Your task to perform on an android device: Open Youtube and go to the subscriptions tab Image 0: 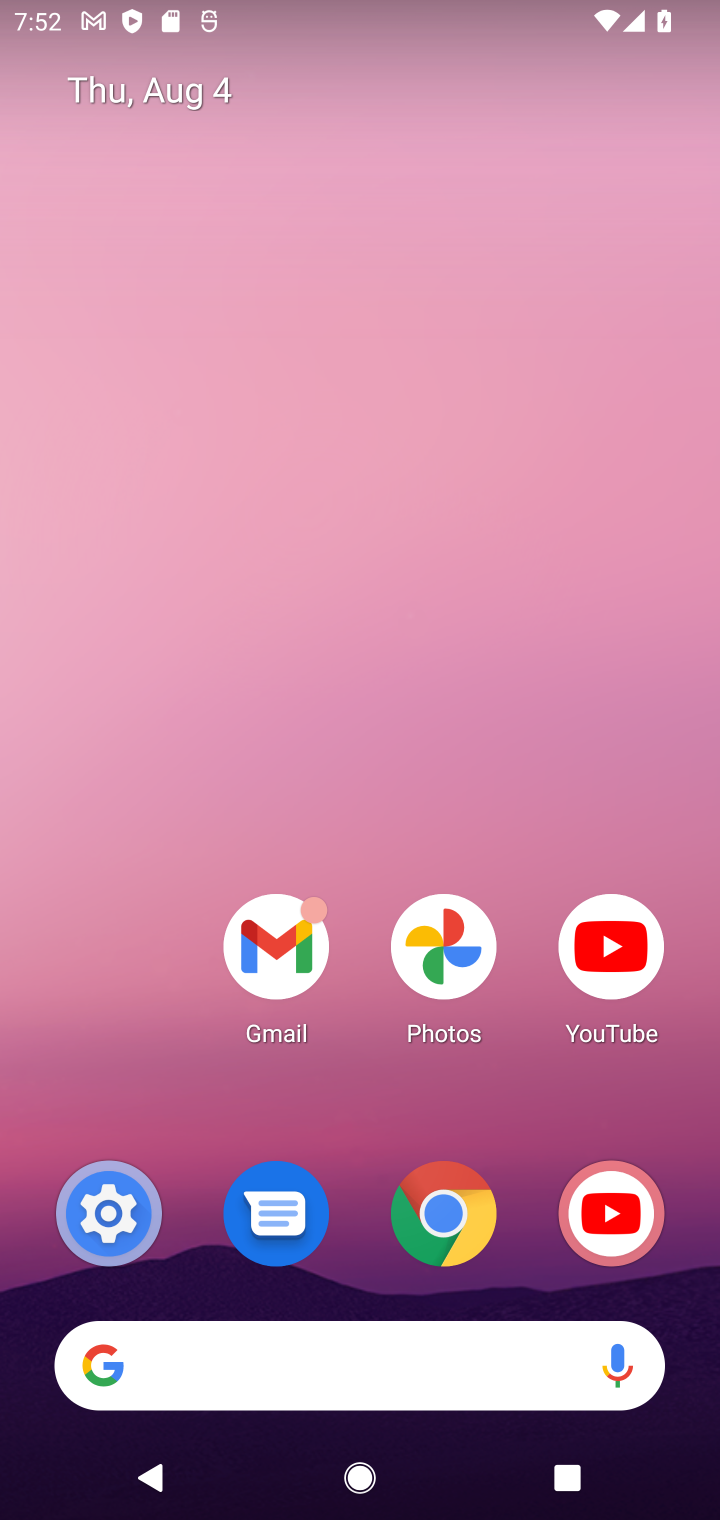
Step 0: click (616, 1221)
Your task to perform on an android device: Open Youtube and go to the subscriptions tab Image 1: 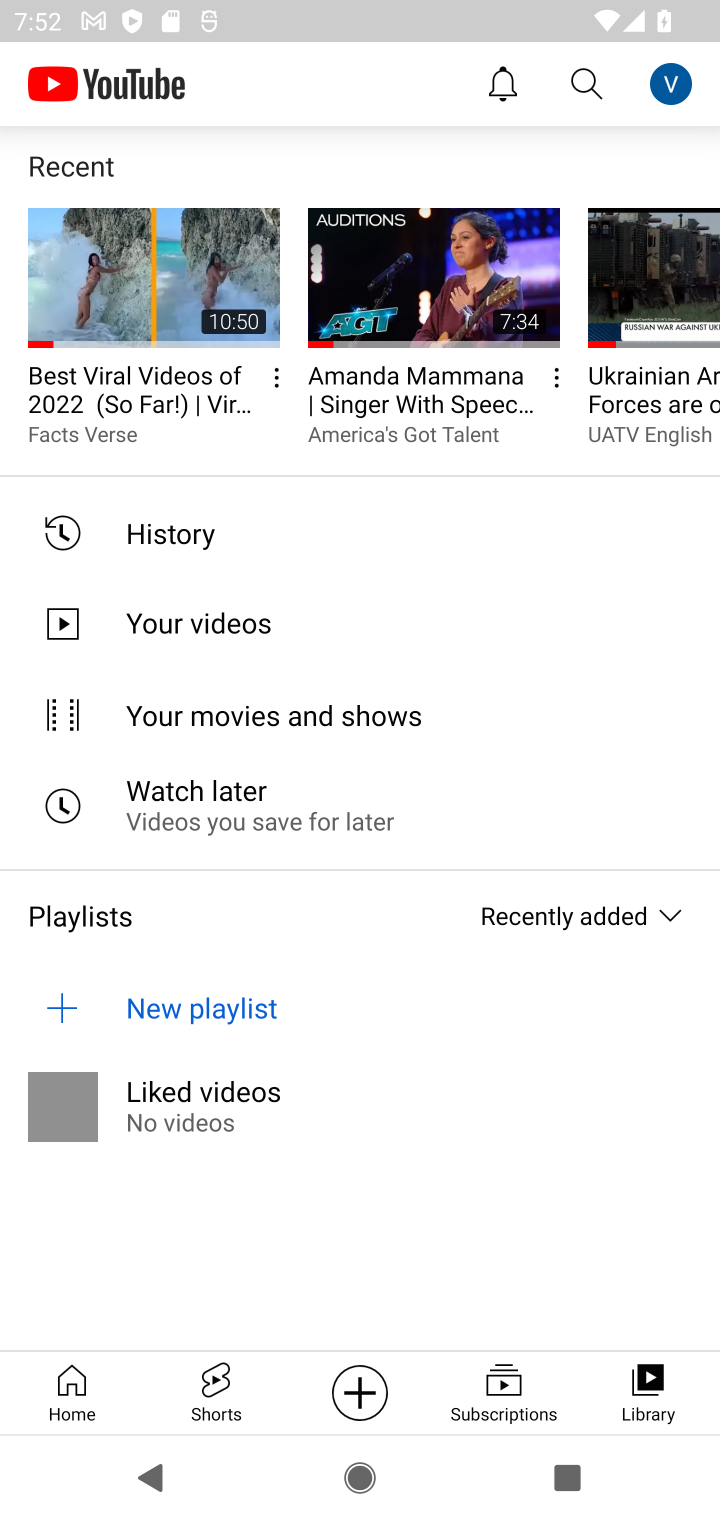
Step 1: click (521, 1387)
Your task to perform on an android device: Open Youtube and go to the subscriptions tab Image 2: 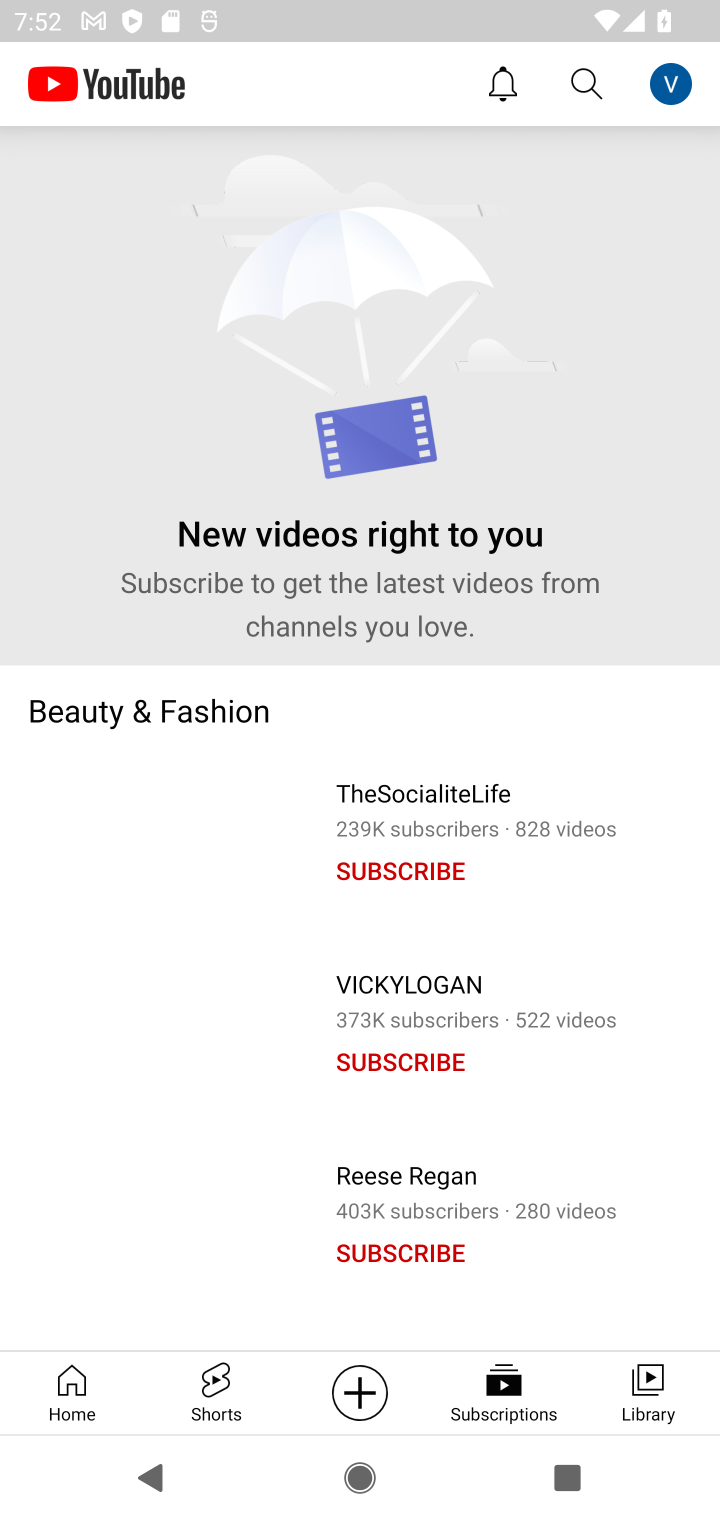
Step 2: task complete